Your task to perform on an android device: clear all cookies in the chrome app Image 0: 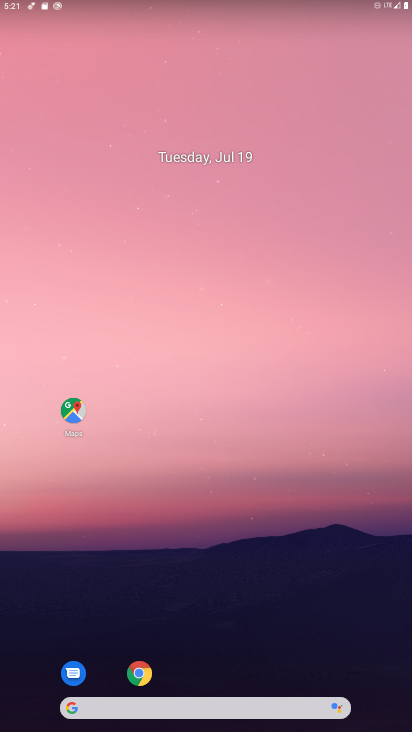
Step 0: press home button
Your task to perform on an android device: clear all cookies in the chrome app Image 1: 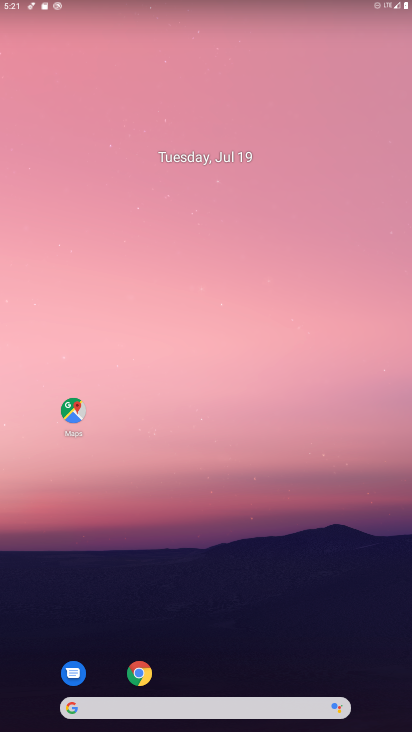
Step 1: click (137, 668)
Your task to perform on an android device: clear all cookies in the chrome app Image 2: 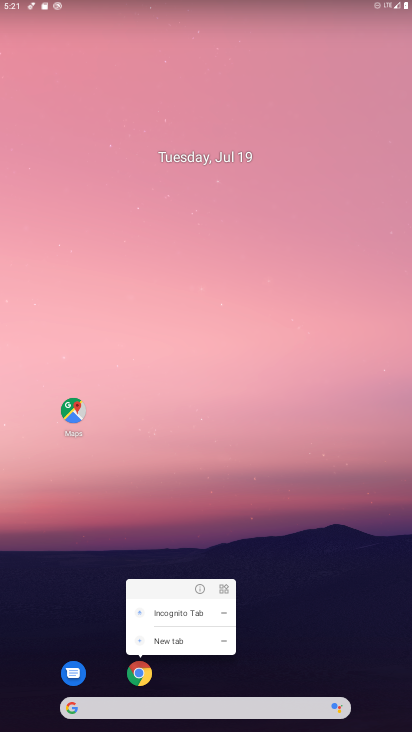
Step 2: click (136, 668)
Your task to perform on an android device: clear all cookies in the chrome app Image 3: 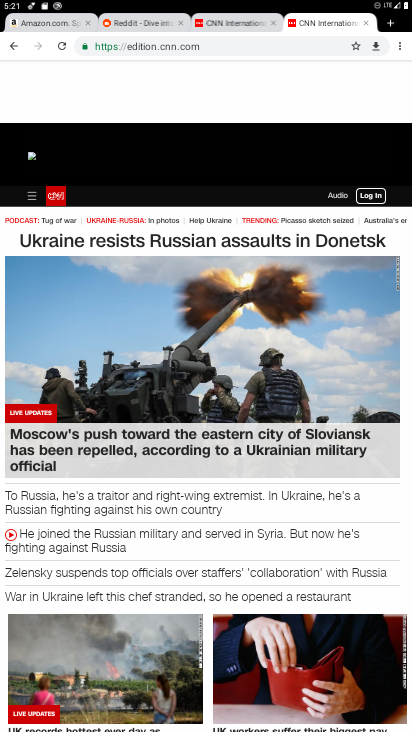
Step 3: click (400, 44)
Your task to perform on an android device: clear all cookies in the chrome app Image 4: 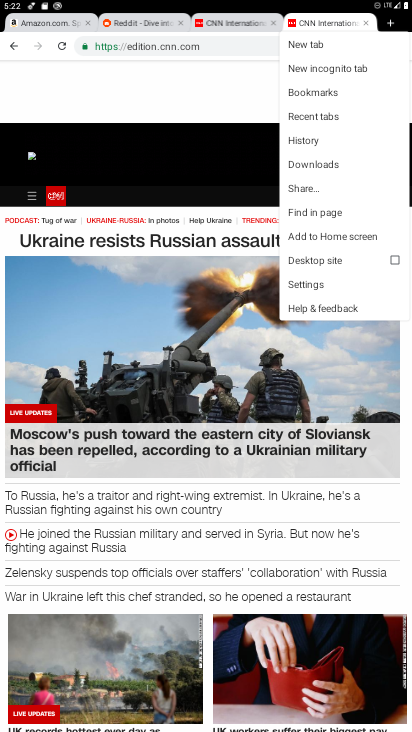
Step 4: click (318, 137)
Your task to perform on an android device: clear all cookies in the chrome app Image 5: 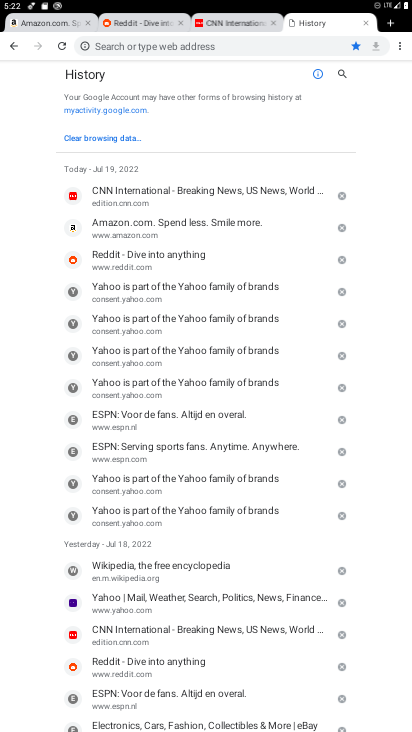
Step 5: click (98, 136)
Your task to perform on an android device: clear all cookies in the chrome app Image 6: 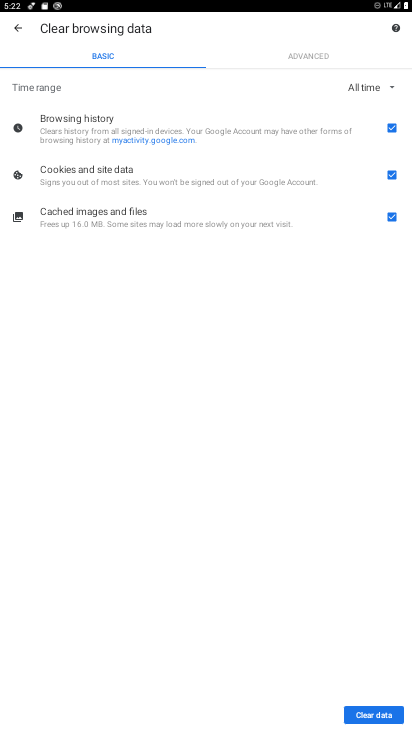
Step 6: click (389, 127)
Your task to perform on an android device: clear all cookies in the chrome app Image 7: 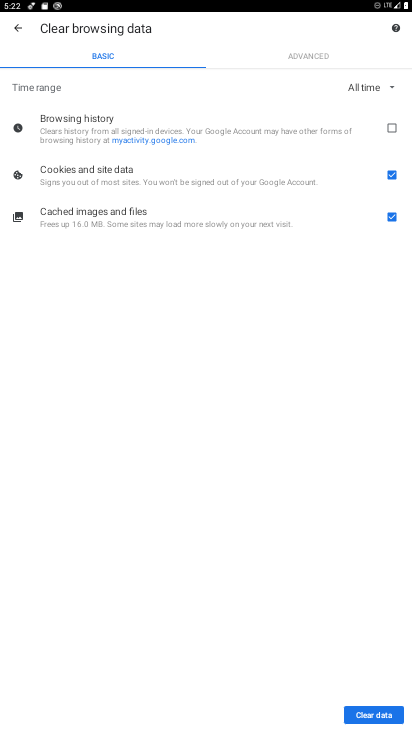
Step 7: click (385, 218)
Your task to perform on an android device: clear all cookies in the chrome app Image 8: 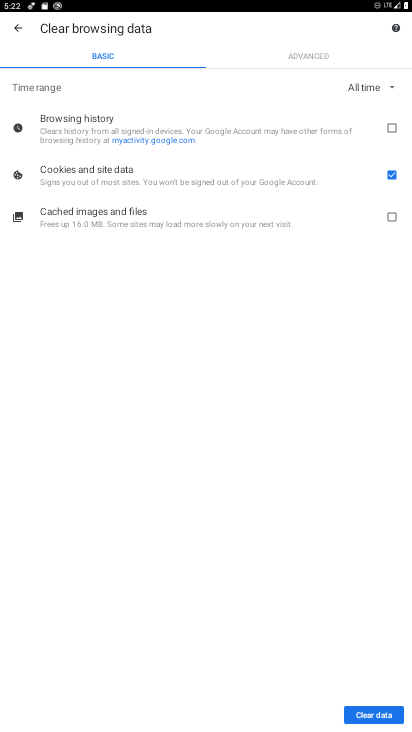
Step 8: task complete